Your task to perform on an android device: Go to Android settings Image 0: 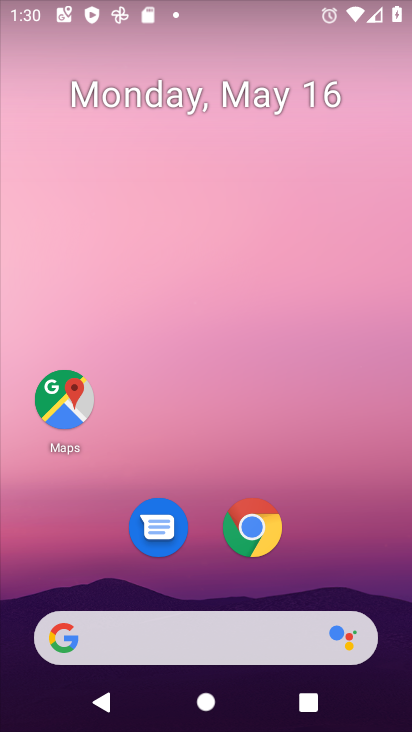
Step 0: drag from (334, 571) to (321, 133)
Your task to perform on an android device: Go to Android settings Image 1: 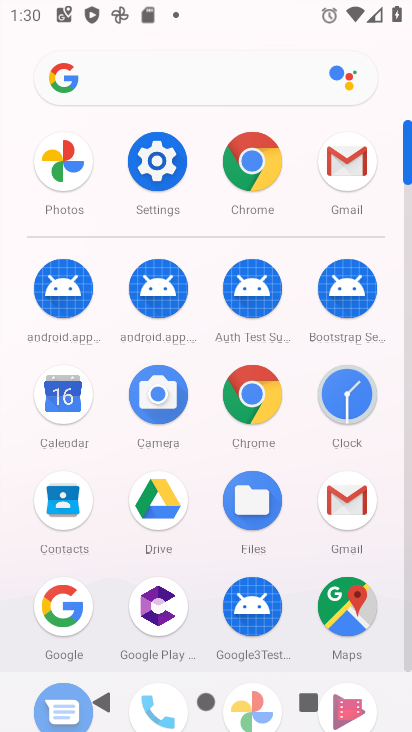
Step 1: click (176, 178)
Your task to perform on an android device: Go to Android settings Image 2: 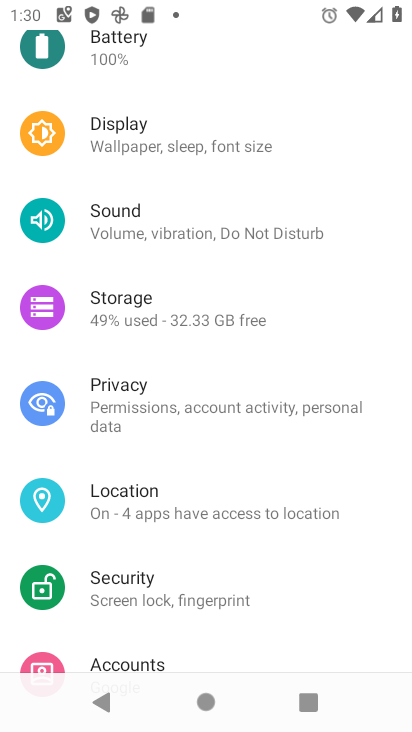
Step 2: task complete